Your task to perform on an android device: Turn on the flashlight Image 0: 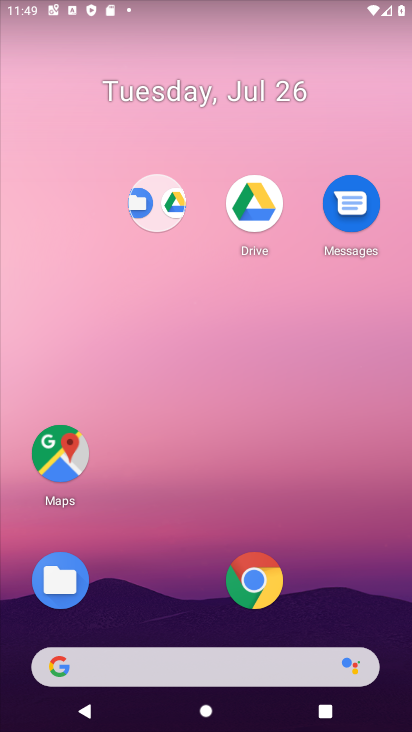
Step 0: drag from (131, 612) to (159, 132)
Your task to perform on an android device: Turn on the flashlight Image 1: 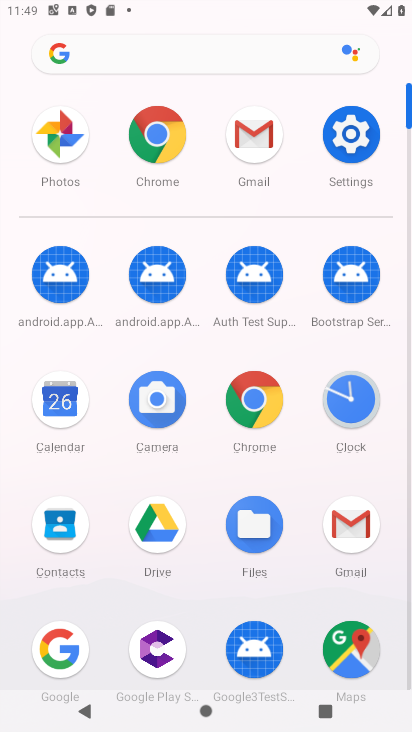
Step 1: click (353, 157)
Your task to perform on an android device: Turn on the flashlight Image 2: 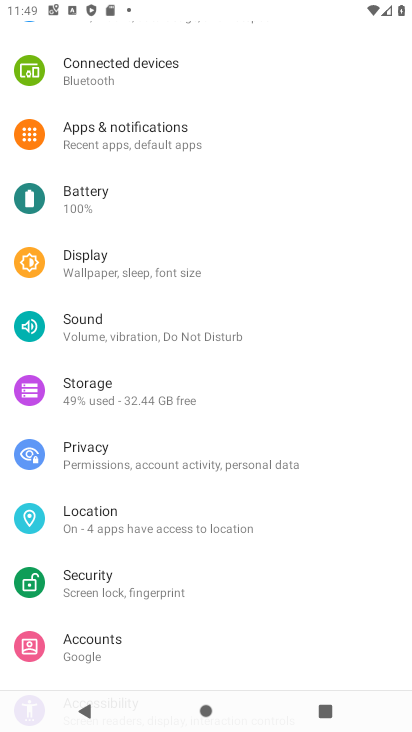
Step 2: task complete